Your task to perform on an android device: Open Google Image 0: 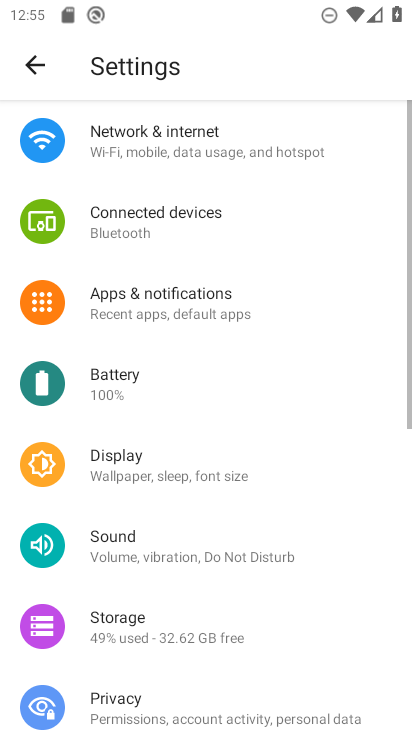
Step 0: press back button
Your task to perform on an android device: Open Google Image 1: 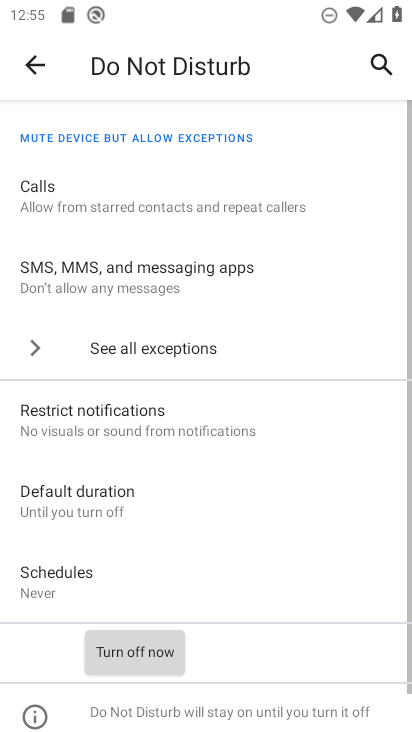
Step 1: press back button
Your task to perform on an android device: Open Google Image 2: 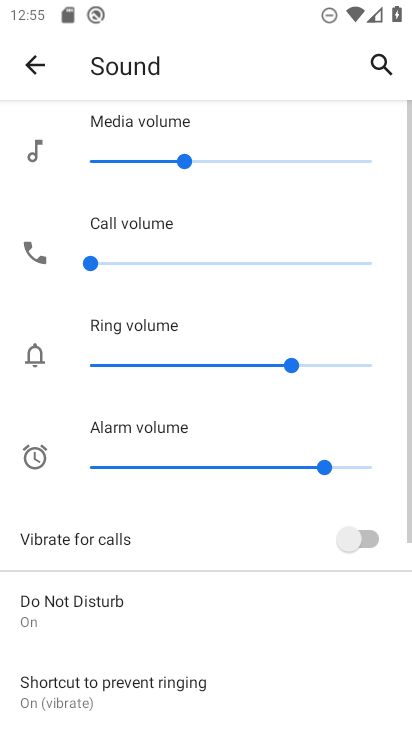
Step 2: press back button
Your task to perform on an android device: Open Google Image 3: 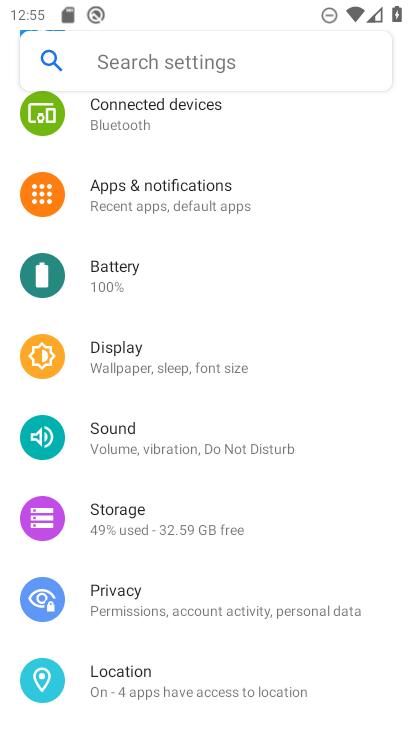
Step 3: press back button
Your task to perform on an android device: Open Google Image 4: 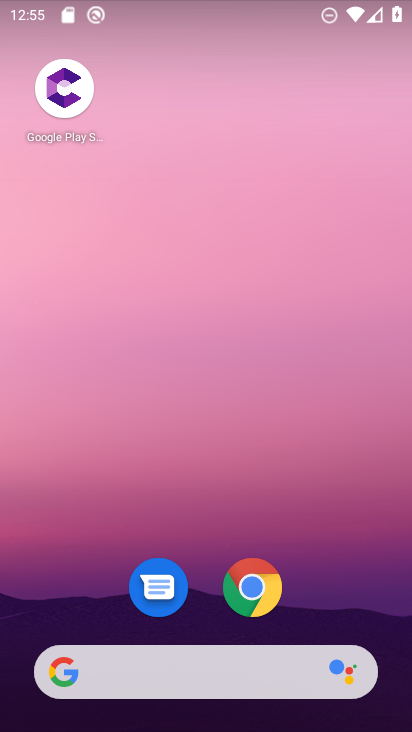
Step 4: drag from (318, 597) to (242, 50)
Your task to perform on an android device: Open Google Image 5: 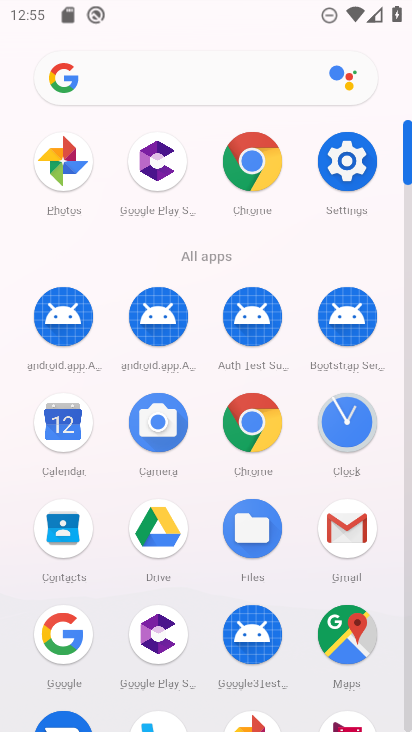
Step 5: click (58, 636)
Your task to perform on an android device: Open Google Image 6: 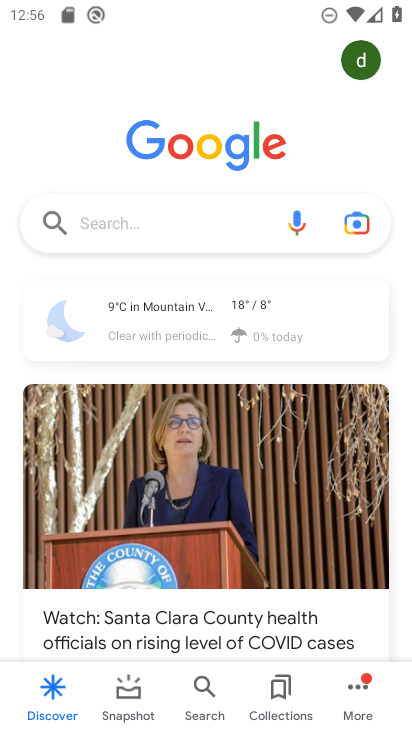
Step 6: task complete